Your task to perform on an android device: Search for the new Nike Air Max 270 on Nike.com Image 0: 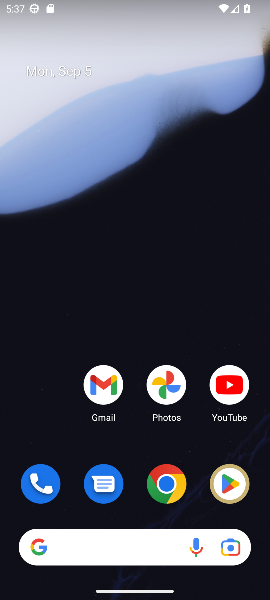
Step 0: click (168, 480)
Your task to perform on an android device: Search for the new Nike Air Max 270 on Nike.com Image 1: 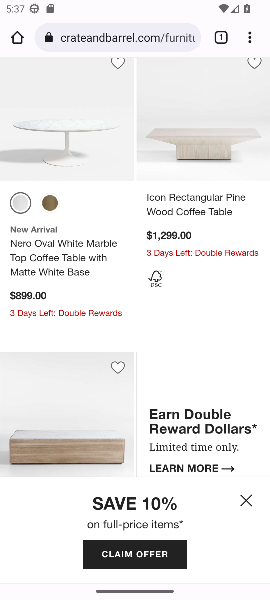
Step 1: click (142, 34)
Your task to perform on an android device: Search for the new Nike Air Max 270 on Nike.com Image 2: 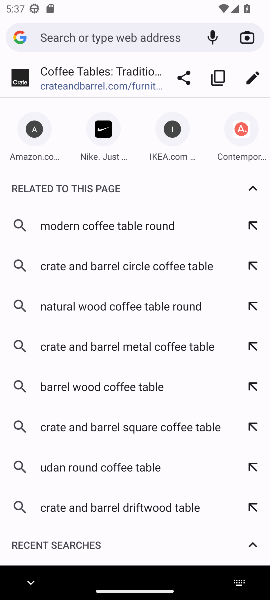
Step 2: type "Nike.com"
Your task to perform on an android device: Search for the new Nike Air Max 270 on Nike.com Image 3: 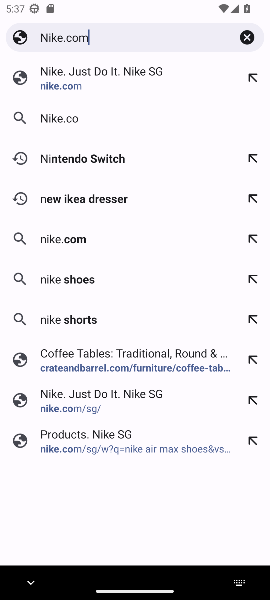
Step 3: press enter
Your task to perform on an android device: Search for the new Nike Air Max 270 on Nike.com Image 4: 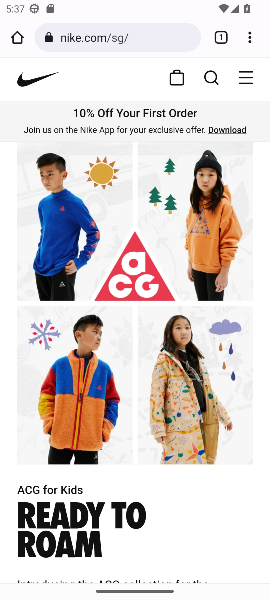
Step 4: click (201, 75)
Your task to perform on an android device: Search for the new Nike Air Max 270 on Nike.com Image 5: 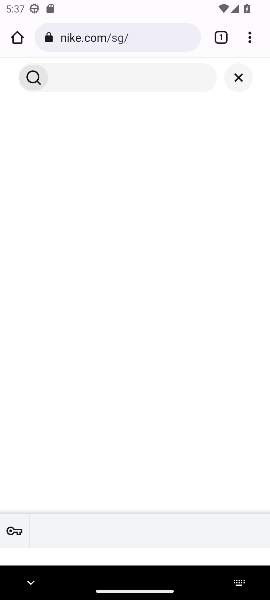
Step 5: click (77, 70)
Your task to perform on an android device: Search for the new Nike Air Max 270 on Nike.com Image 6: 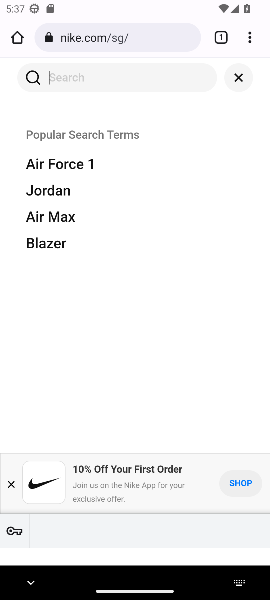
Step 6: press enter
Your task to perform on an android device: Search for the new Nike Air Max 270 on Nike.com Image 7: 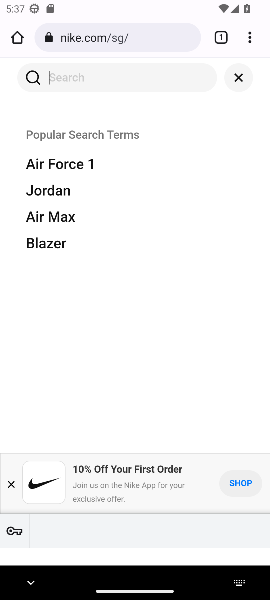
Step 7: type "Nike Air Max 270"
Your task to perform on an android device: Search for the new Nike Air Max 270 on Nike.com Image 8: 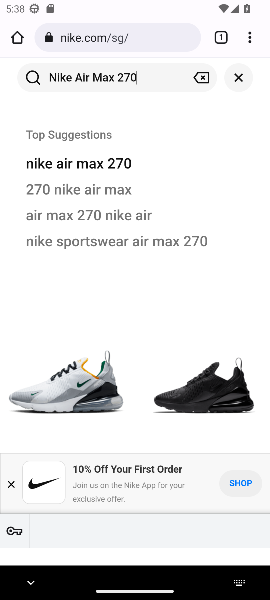
Step 8: task complete